Your task to perform on an android device: change notifications settings Image 0: 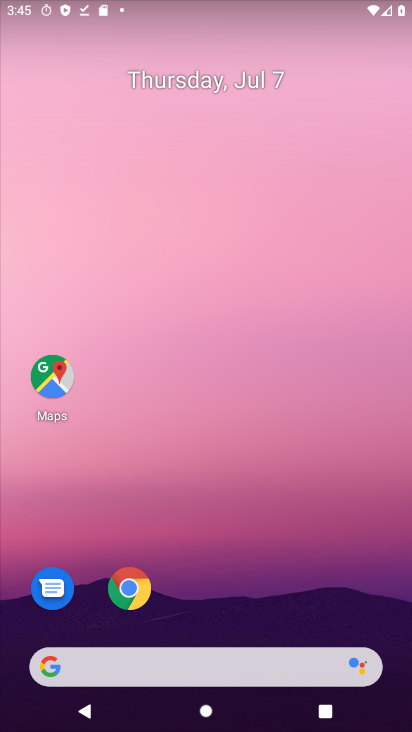
Step 0: drag from (240, 671) to (179, 193)
Your task to perform on an android device: change notifications settings Image 1: 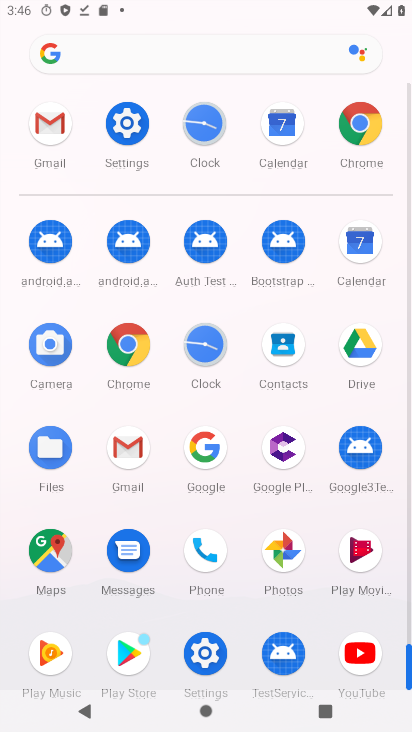
Step 1: drag from (279, 589) to (247, 178)
Your task to perform on an android device: change notifications settings Image 2: 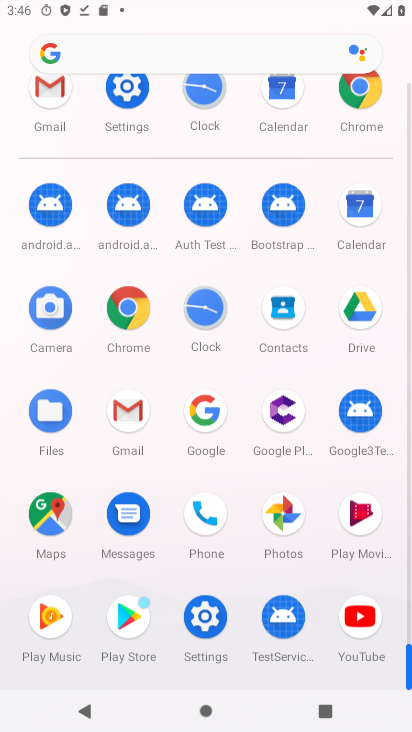
Step 2: drag from (279, 580) to (288, 241)
Your task to perform on an android device: change notifications settings Image 3: 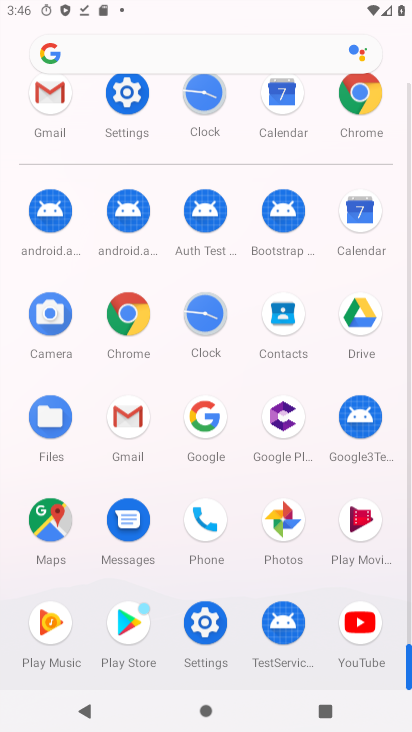
Step 3: drag from (290, 364) to (231, 354)
Your task to perform on an android device: change notifications settings Image 4: 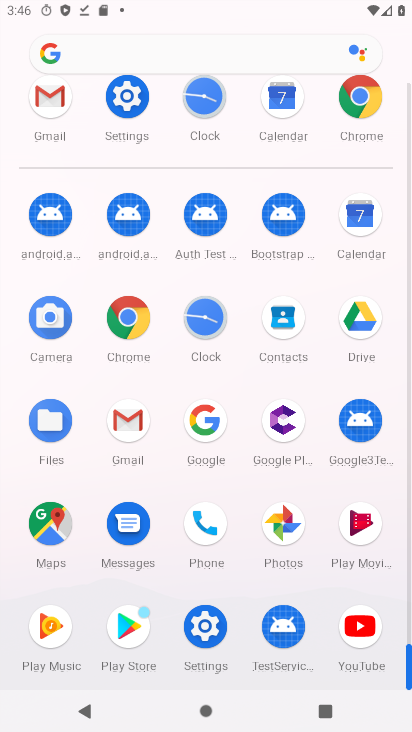
Step 4: click (126, 98)
Your task to perform on an android device: change notifications settings Image 5: 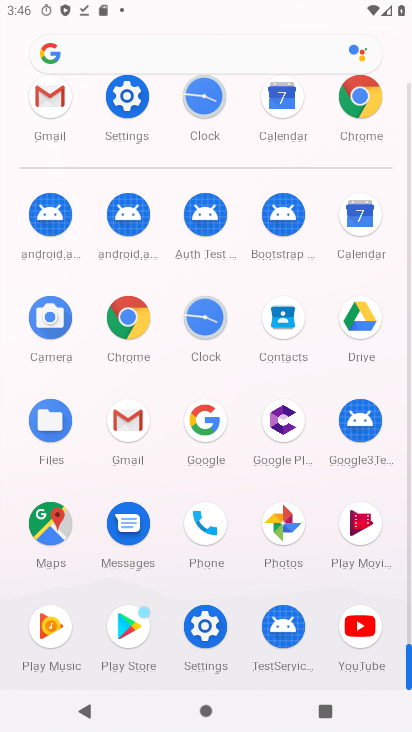
Step 5: click (133, 101)
Your task to perform on an android device: change notifications settings Image 6: 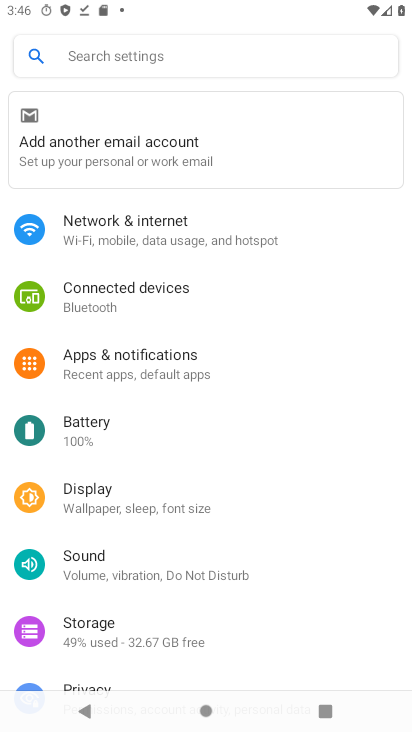
Step 6: click (116, 373)
Your task to perform on an android device: change notifications settings Image 7: 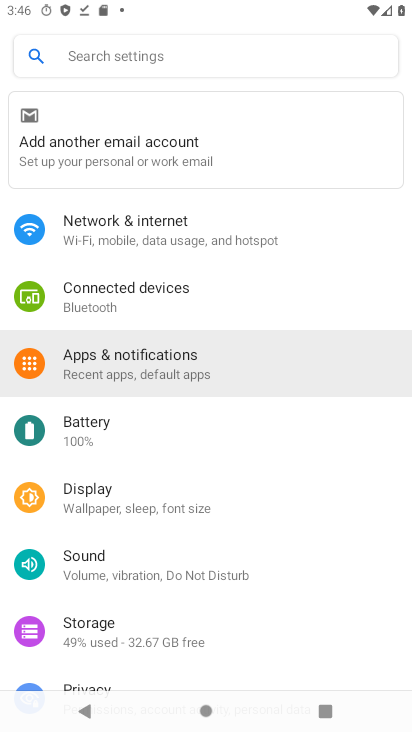
Step 7: click (114, 374)
Your task to perform on an android device: change notifications settings Image 8: 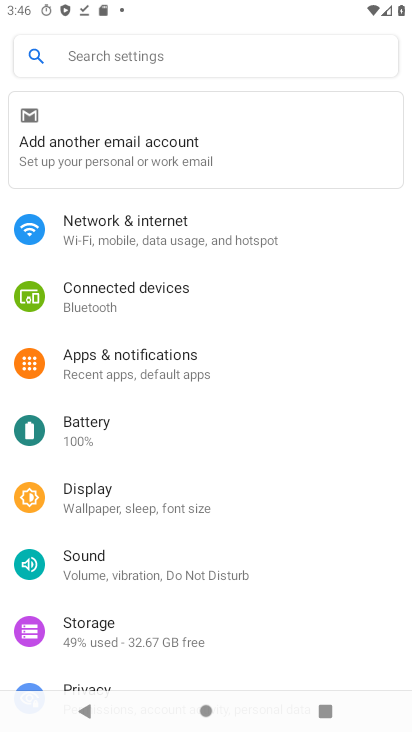
Step 8: click (114, 374)
Your task to perform on an android device: change notifications settings Image 9: 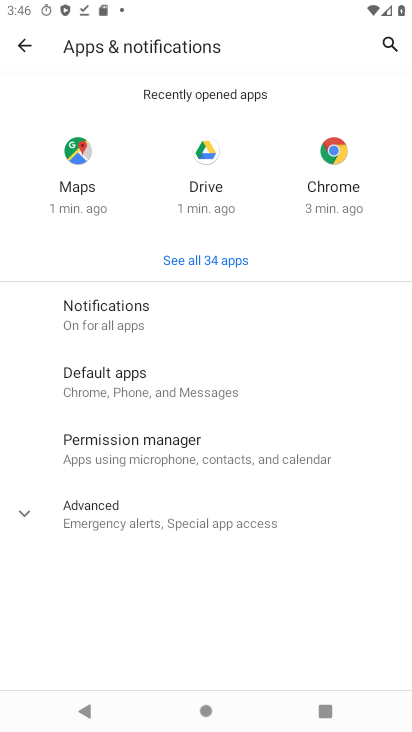
Step 9: click (107, 309)
Your task to perform on an android device: change notifications settings Image 10: 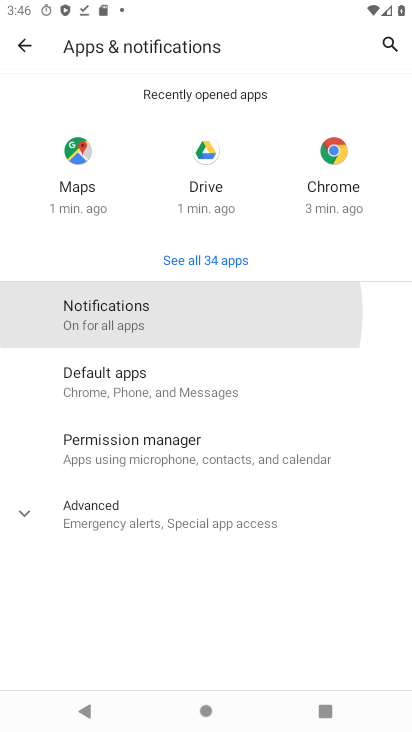
Step 10: click (107, 309)
Your task to perform on an android device: change notifications settings Image 11: 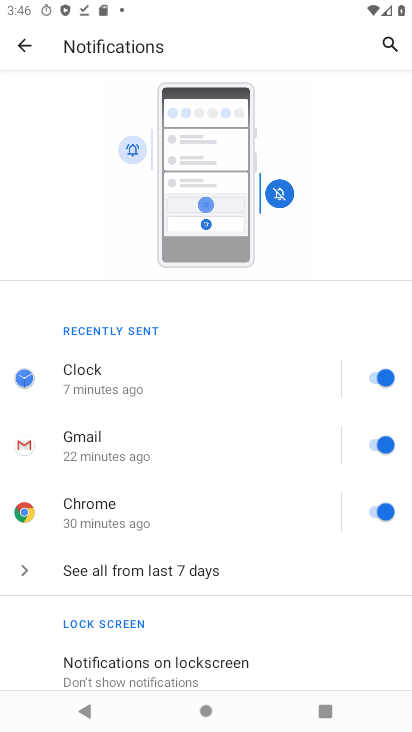
Step 11: click (385, 372)
Your task to perform on an android device: change notifications settings Image 12: 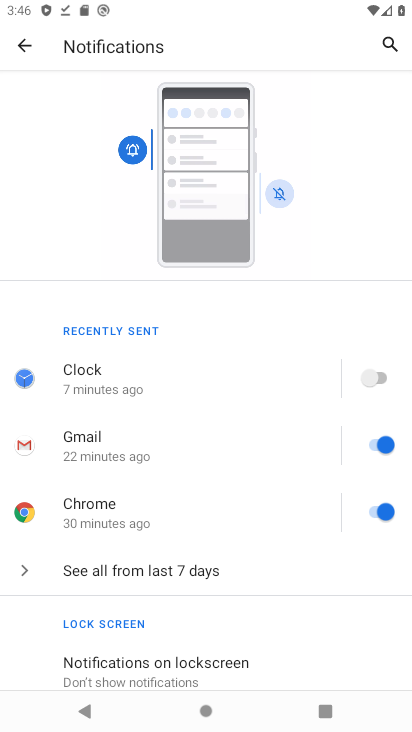
Step 12: click (384, 445)
Your task to perform on an android device: change notifications settings Image 13: 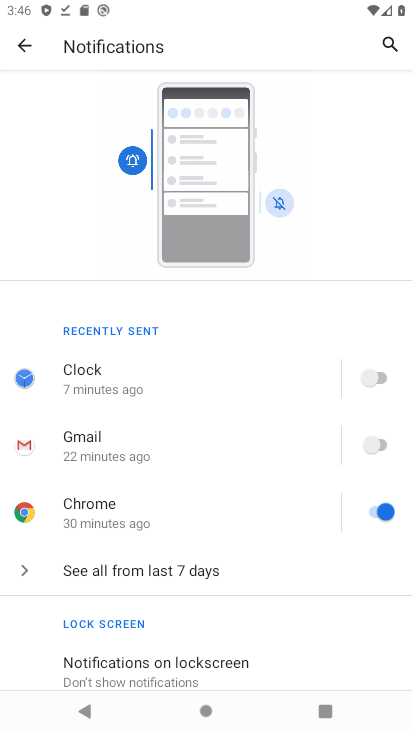
Step 13: click (387, 501)
Your task to perform on an android device: change notifications settings Image 14: 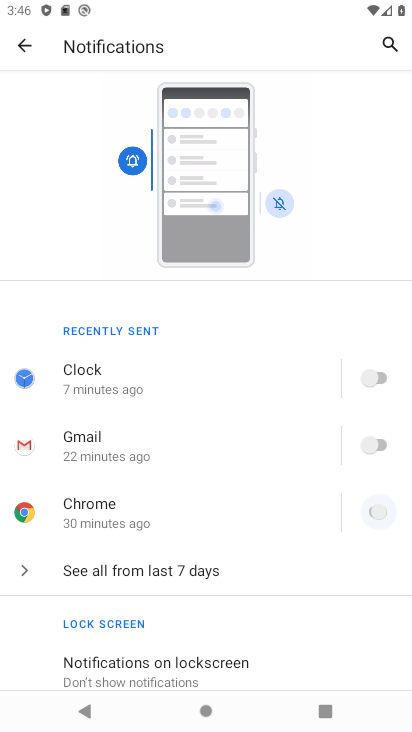
Step 14: click (387, 436)
Your task to perform on an android device: change notifications settings Image 15: 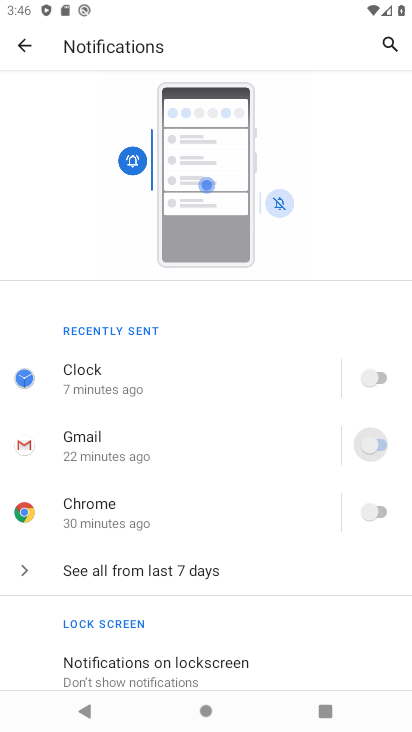
Step 15: click (378, 505)
Your task to perform on an android device: change notifications settings Image 16: 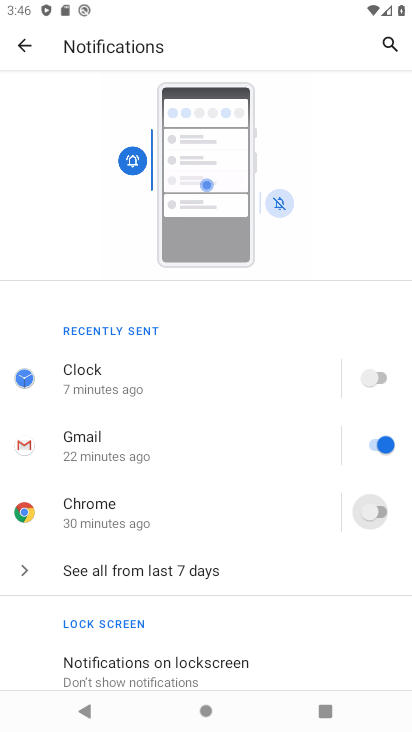
Step 16: drag from (240, 592) to (203, 217)
Your task to perform on an android device: change notifications settings Image 17: 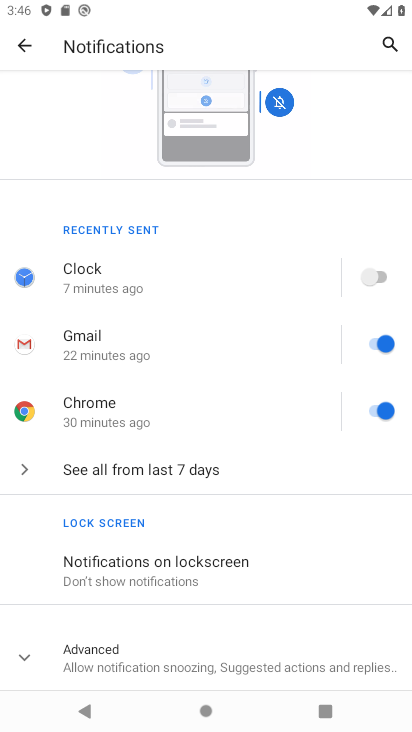
Step 17: click (381, 335)
Your task to perform on an android device: change notifications settings Image 18: 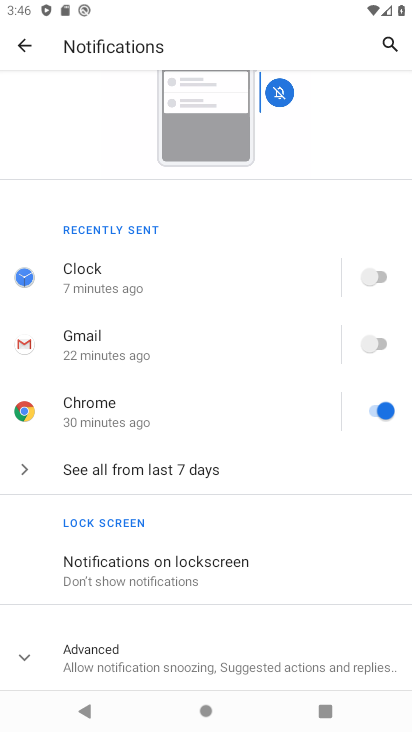
Step 18: click (394, 404)
Your task to perform on an android device: change notifications settings Image 19: 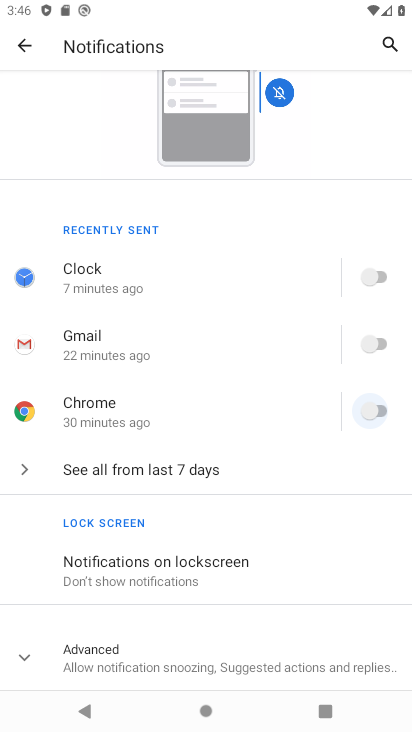
Step 19: click (381, 404)
Your task to perform on an android device: change notifications settings Image 20: 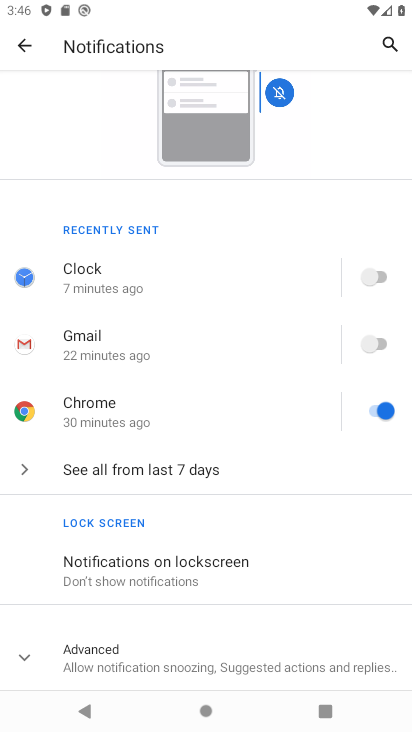
Step 20: drag from (260, 613) to (246, 233)
Your task to perform on an android device: change notifications settings Image 21: 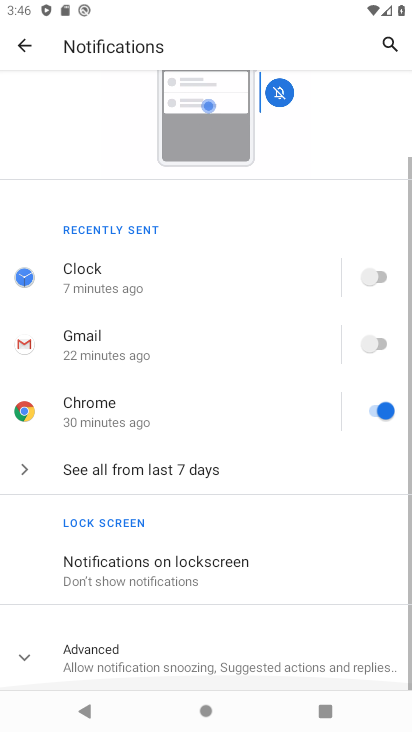
Step 21: drag from (263, 629) to (177, 245)
Your task to perform on an android device: change notifications settings Image 22: 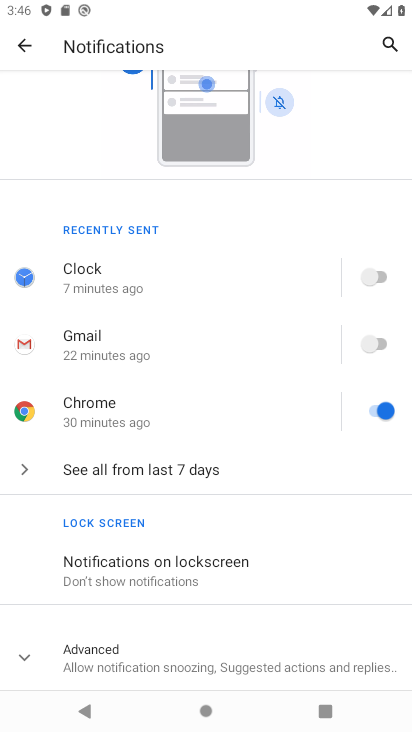
Step 22: click (383, 408)
Your task to perform on an android device: change notifications settings Image 23: 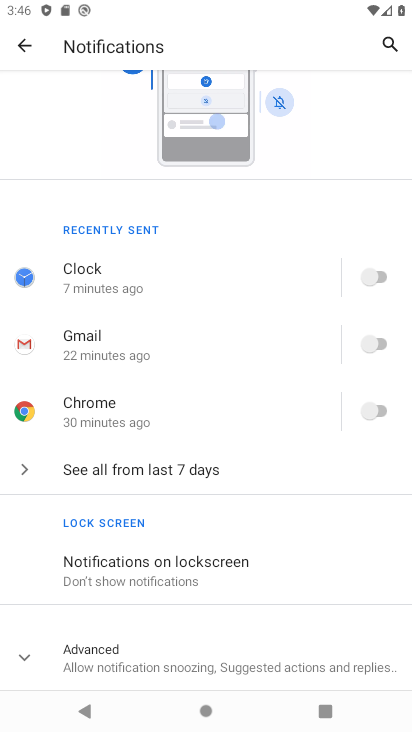
Step 23: task complete